Your task to perform on an android device: change notifications settings Image 0: 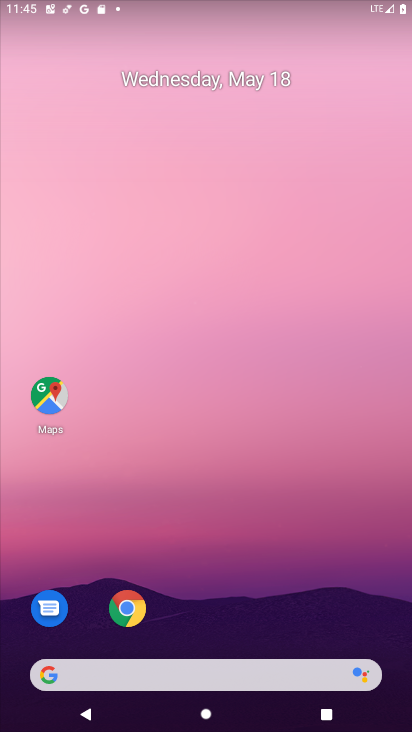
Step 0: drag from (183, 624) to (172, 56)
Your task to perform on an android device: change notifications settings Image 1: 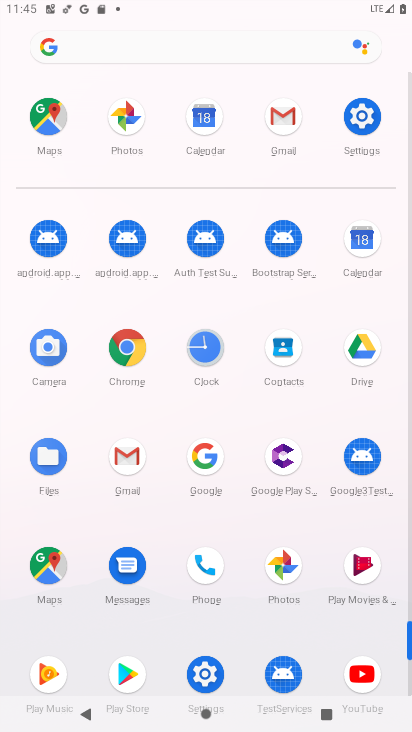
Step 1: click (357, 112)
Your task to perform on an android device: change notifications settings Image 2: 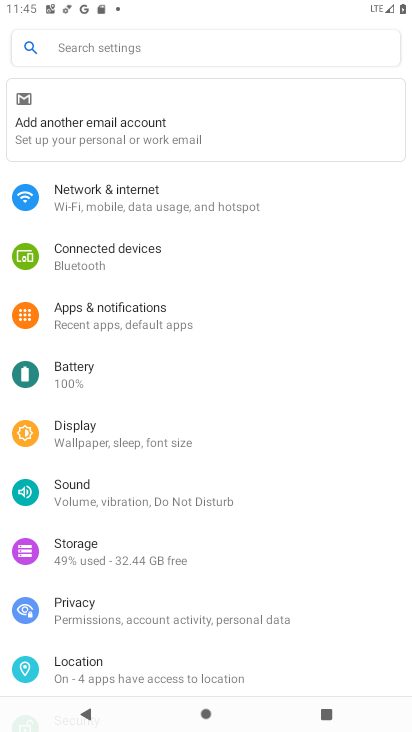
Step 2: click (130, 311)
Your task to perform on an android device: change notifications settings Image 3: 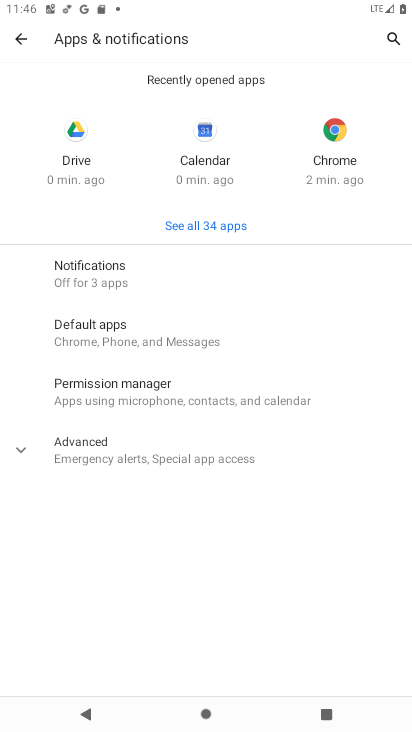
Step 3: click (102, 279)
Your task to perform on an android device: change notifications settings Image 4: 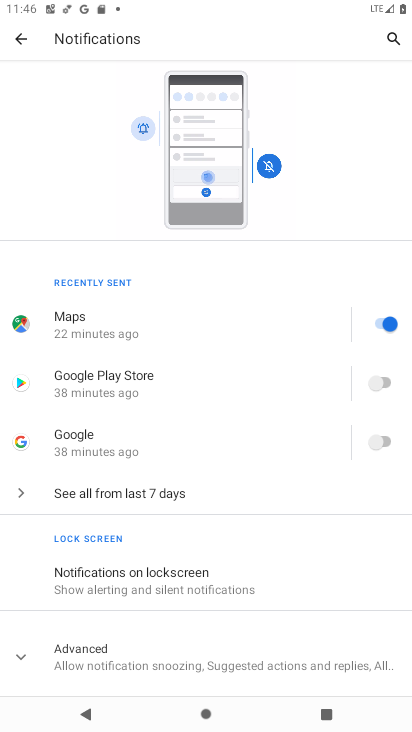
Step 4: click (383, 323)
Your task to perform on an android device: change notifications settings Image 5: 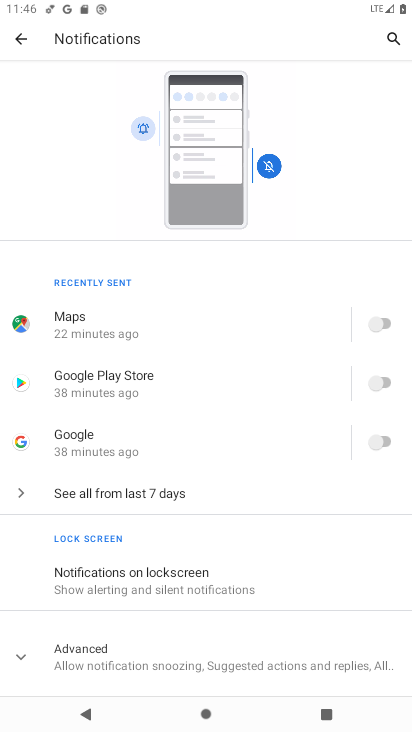
Step 5: task complete